Your task to perform on an android device: find snoozed emails in the gmail app Image 0: 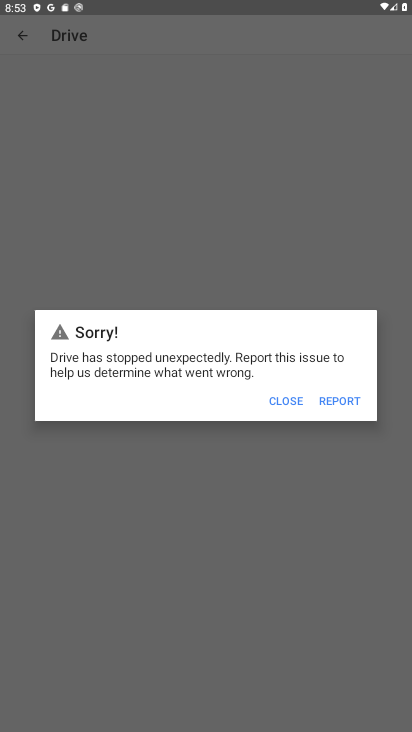
Step 0: press home button
Your task to perform on an android device: find snoozed emails in the gmail app Image 1: 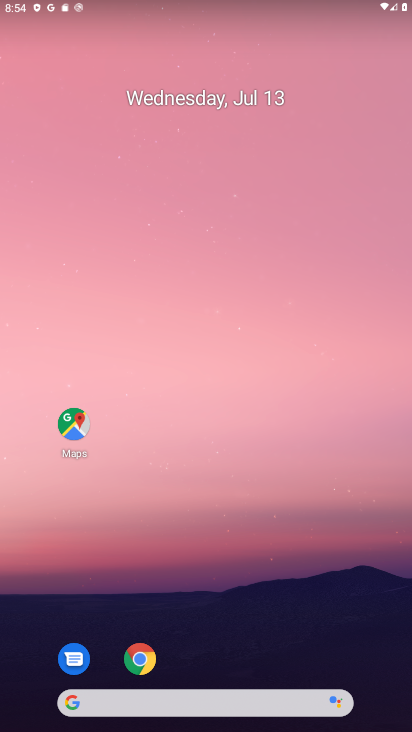
Step 1: drag from (286, 613) to (251, 160)
Your task to perform on an android device: find snoozed emails in the gmail app Image 2: 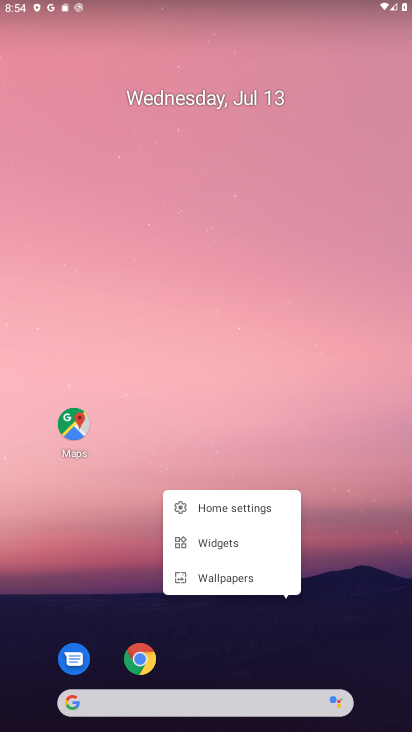
Step 2: click (251, 332)
Your task to perform on an android device: find snoozed emails in the gmail app Image 3: 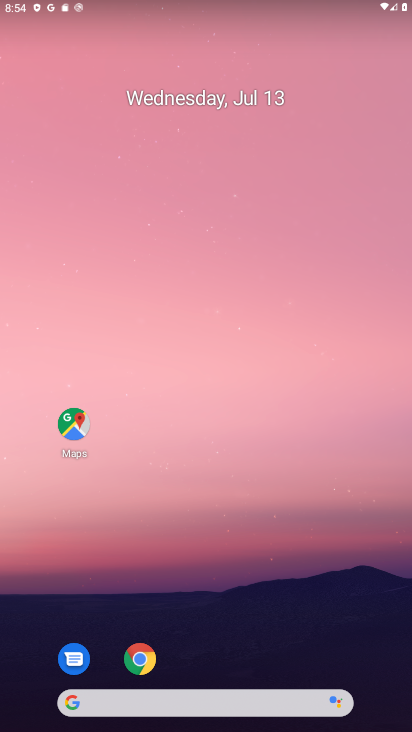
Step 3: drag from (251, 667) to (241, 138)
Your task to perform on an android device: find snoozed emails in the gmail app Image 4: 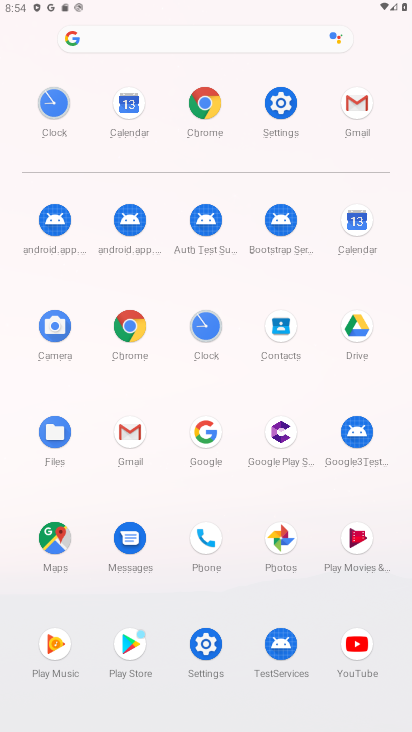
Step 4: click (351, 113)
Your task to perform on an android device: find snoozed emails in the gmail app Image 5: 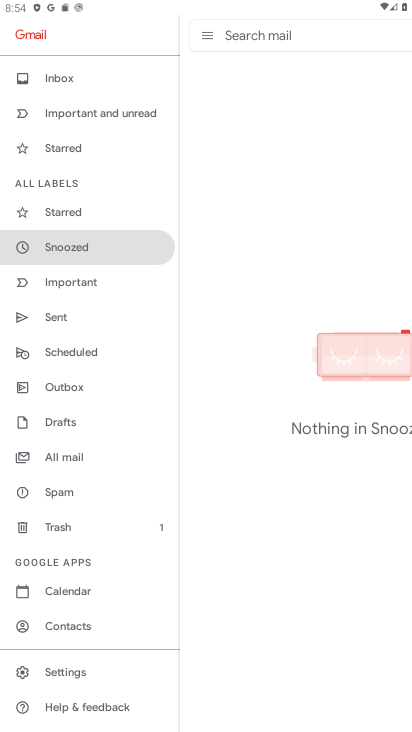
Step 5: click (80, 243)
Your task to perform on an android device: find snoozed emails in the gmail app Image 6: 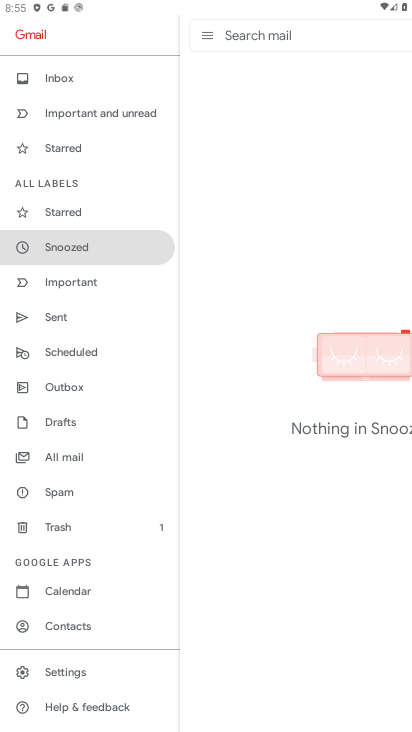
Step 6: task complete